Your task to perform on an android device: change your default location settings in chrome Image 0: 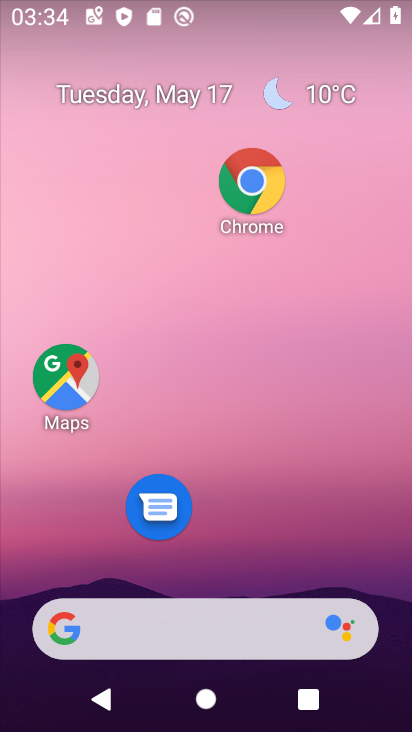
Step 0: click (250, 175)
Your task to perform on an android device: change your default location settings in chrome Image 1: 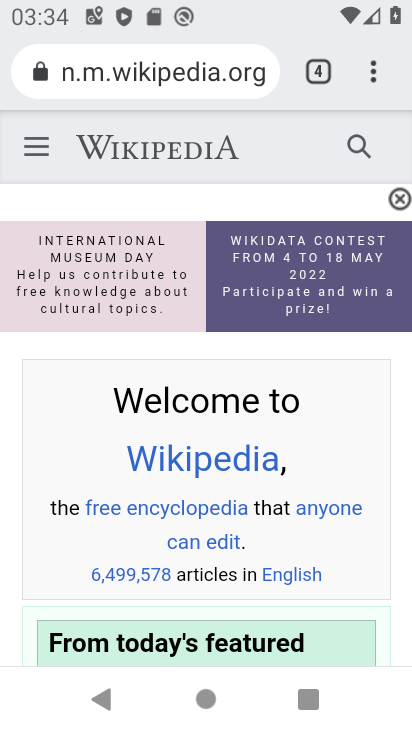
Step 1: click (362, 66)
Your task to perform on an android device: change your default location settings in chrome Image 2: 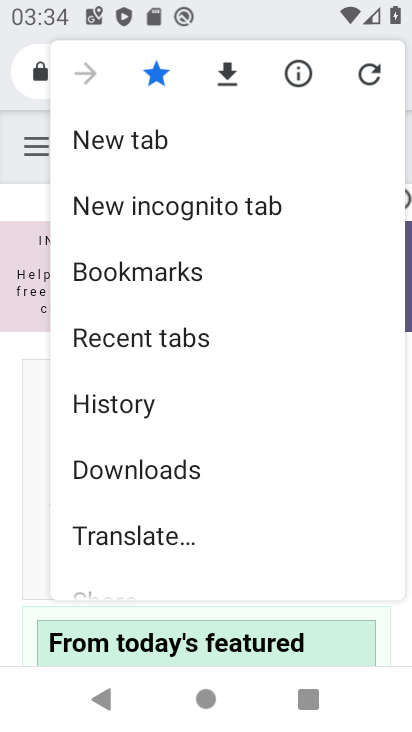
Step 2: drag from (124, 537) to (173, 271)
Your task to perform on an android device: change your default location settings in chrome Image 3: 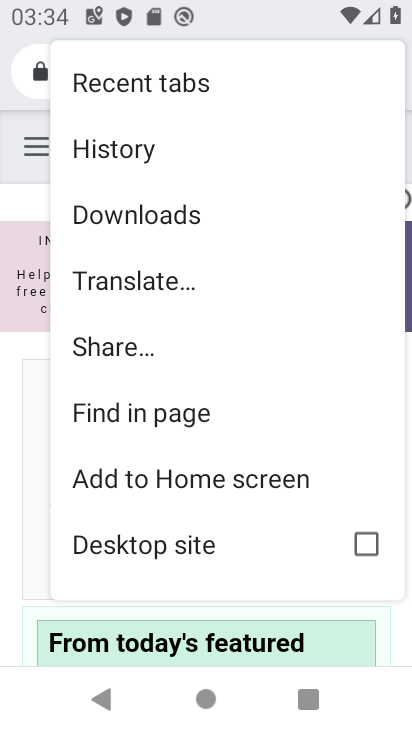
Step 3: drag from (82, 446) to (164, 196)
Your task to perform on an android device: change your default location settings in chrome Image 4: 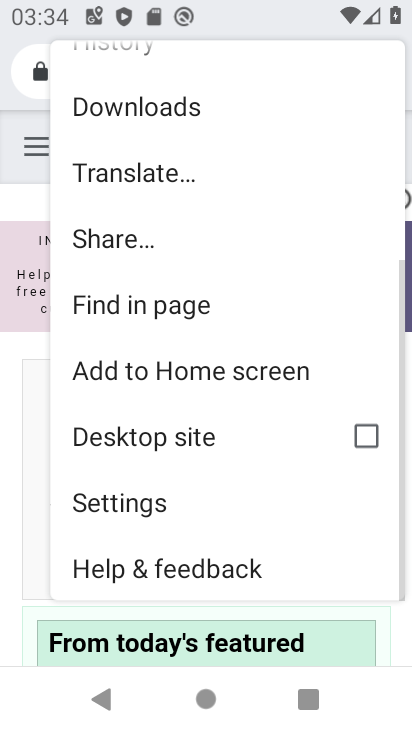
Step 4: click (123, 507)
Your task to perform on an android device: change your default location settings in chrome Image 5: 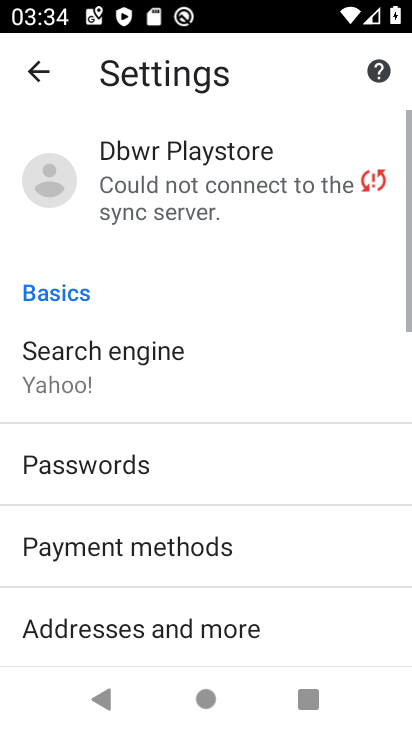
Step 5: drag from (123, 507) to (183, 214)
Your task to perform on an android device: change your default location settings in chrome Image 6: 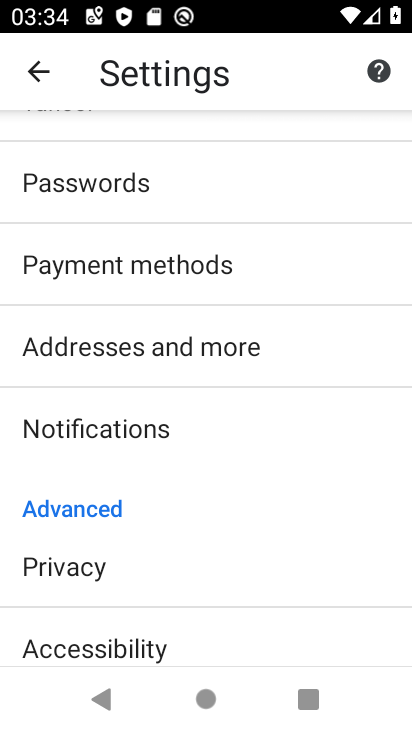
Step 6: drag from (88, 591) to (125, 260)
Your task to perform on an android device: change your default location settings in chrome Image 7: 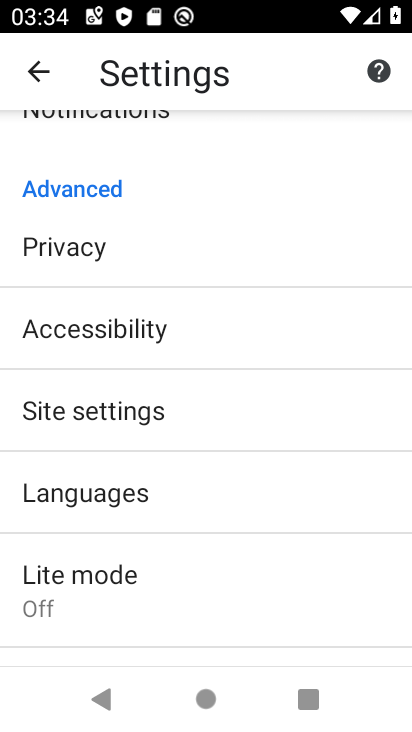
Step 7: drag from (111, 607) to (176, 249)
Your task to perform on an android device: change your default location settings in chrome Image 8: 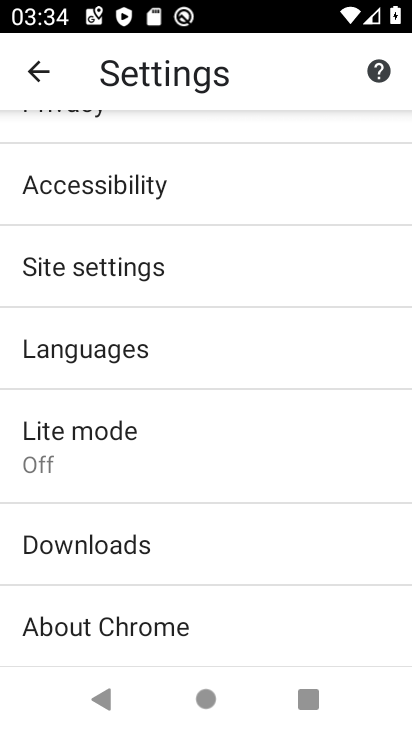
Step 8: click (126, 278)
Your task to perform on an android device: change your default location settings in chrome Image 9: 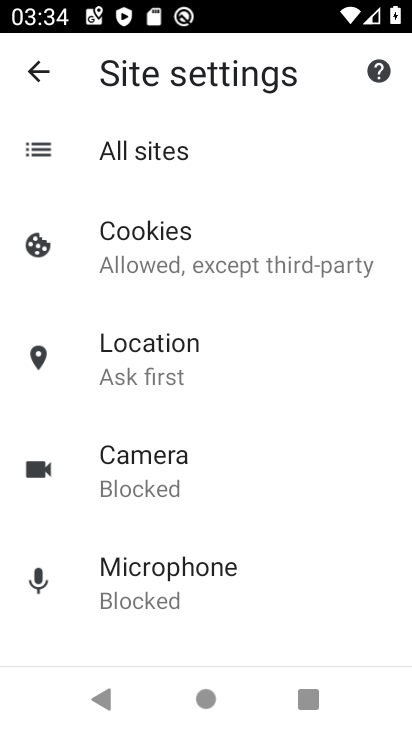
Step 9: click (126, 385)
Your task to perform on an android device: change your default location settings in chrome Image 10: 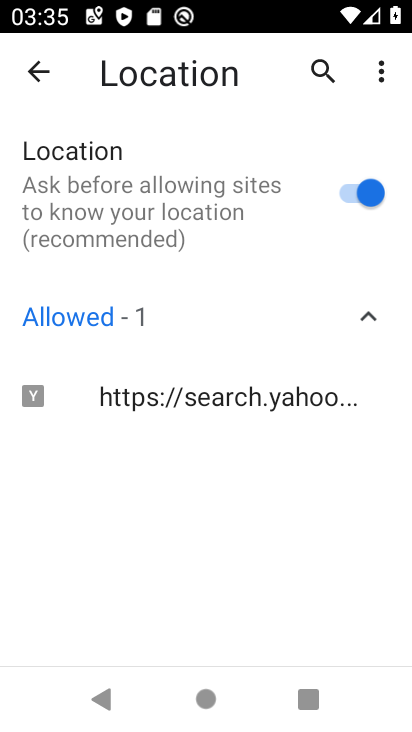
Step 10: click (351, 175)
Your task to perform on an android device: change your default location settings in chrome Image 11: 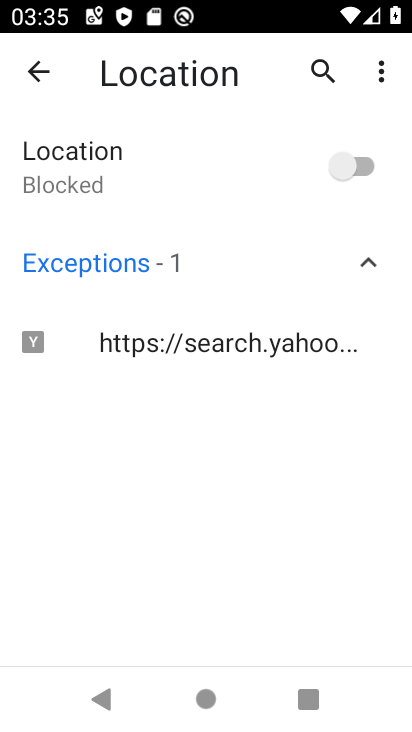
Step 11: task complete